Your task to perform on an android device: Search for sushi restaurants on Maps Image 0: 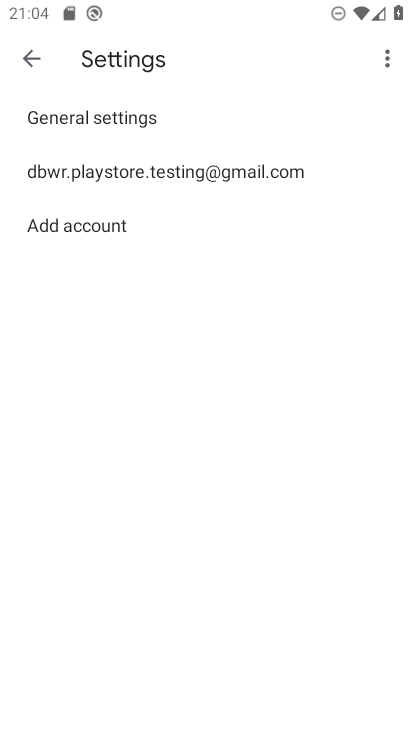
Step 0: press home button
Your task to perform on an android device: Search for sushi restaurants on Maps Image 1: 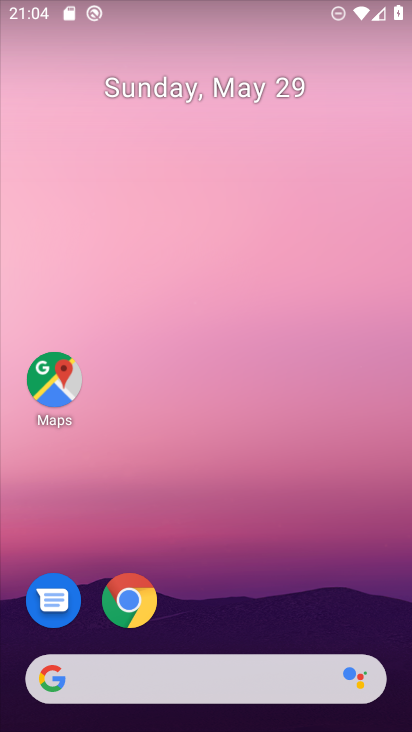
Step 1: drag from (333, 570) to (356, 166)
Your task to perform on an android device: Search for sushi restaurants on Maps Image 2: 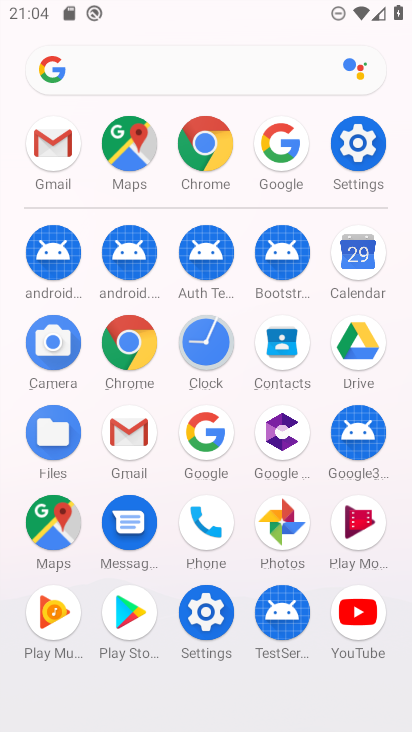
Step 2: click (42, 525)
Your task to perform on an android device: Search for sushi restaurants on Maps Image 3: 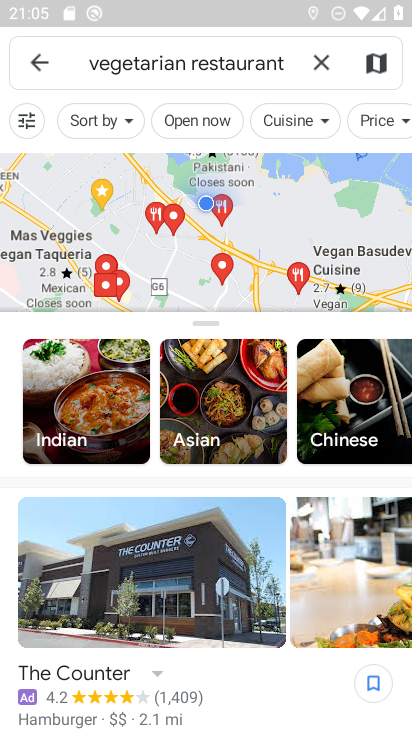
Step 3: click (315, 69)
Your task to perform on an android device: Search for sushi restaurants on Maps Image 4: 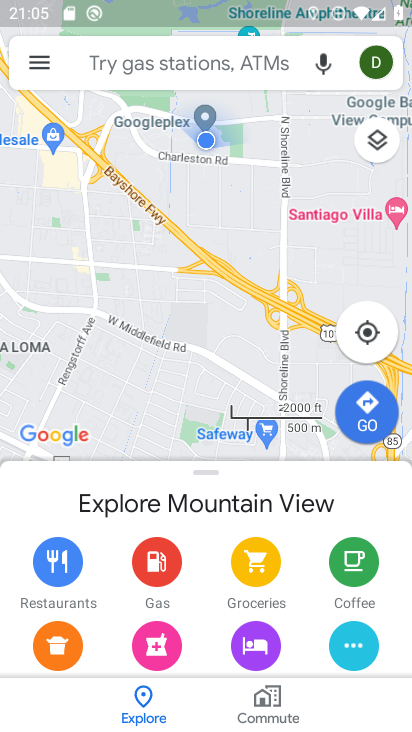
Step 4: click (157, 69)
Your task to perform on an android device: Search for sushi restaurants on Maps Image 5: 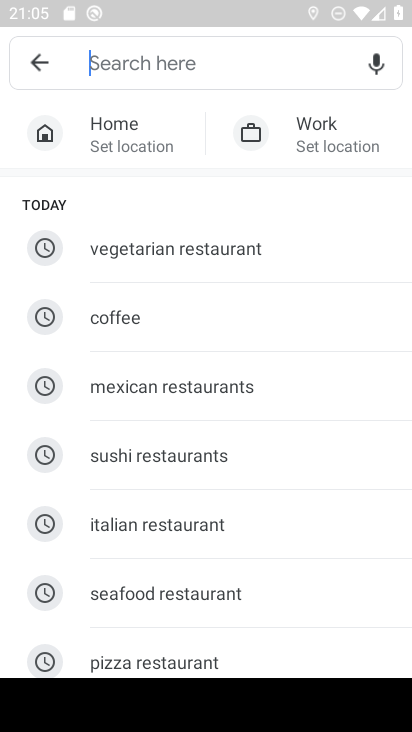
Step 5: type "sushi restaurants"
Your task to perform on an android device: Search for sushi restaurants on Maps Image 6: 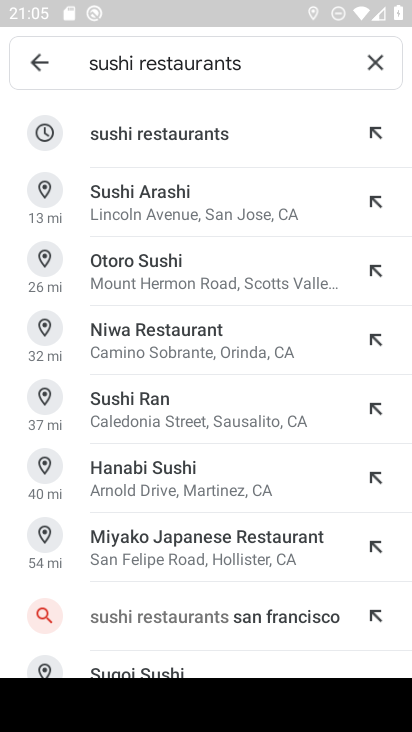
Step 6: click (224, 137)
Your task to perform on an android device: Search for sushi restaurants on Maps Image 7: 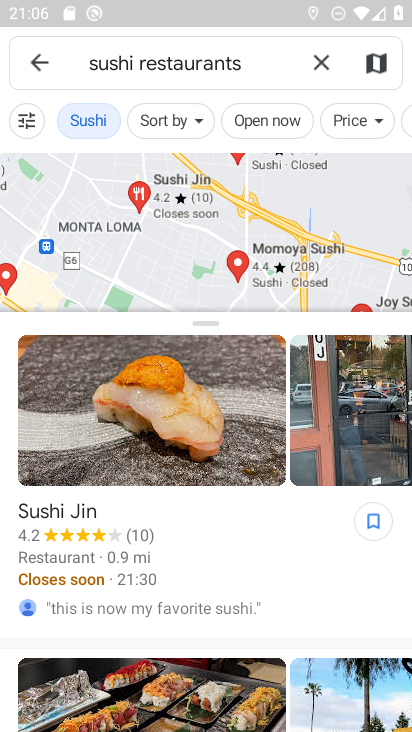
Step 7: task complete